Your task to perform on an android device: change text size in settings app Image 0: 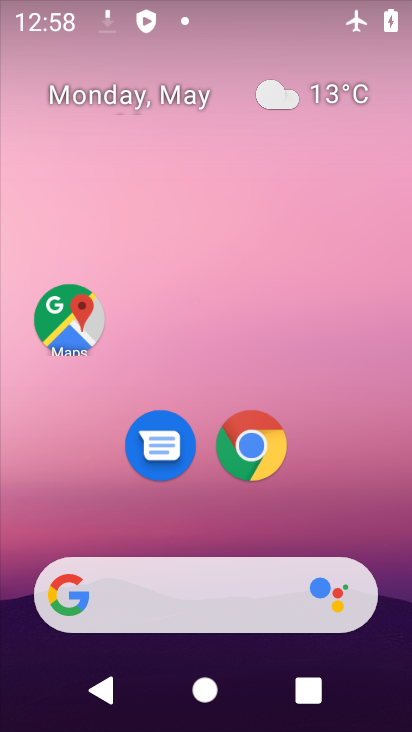
Step 0: drag from (311, 543) to (274, 89)
Your task to perform on an android device: change text size in settings app Image 1: 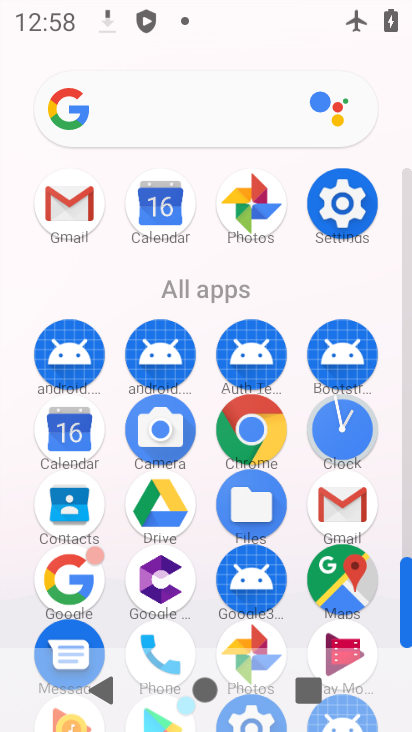
Step 1: click (335, 207)
Your task to perform on an android device: change text size in settings app Image 2: 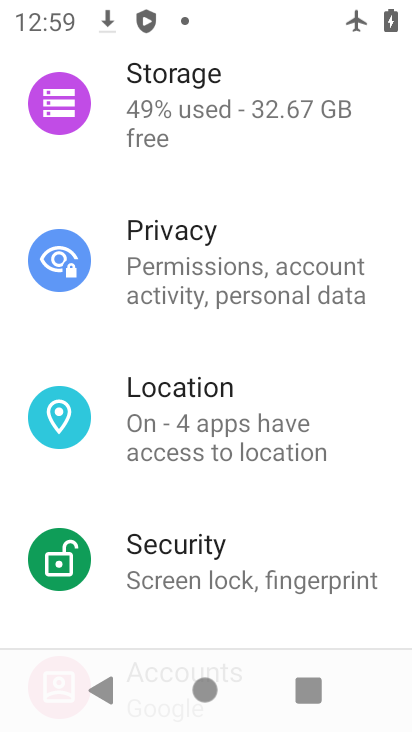
Step 2: drag from (239, 196) to (264, 526)
Your task to perform on an android device: change text size in settings app Image 3: 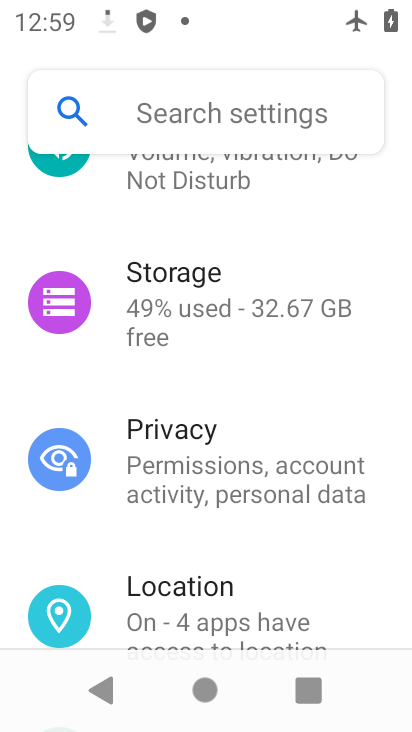
Step 3: drag from (261, 177) to (242, 439)
Your task to perform on an android device: change text size in settings app Image 4: 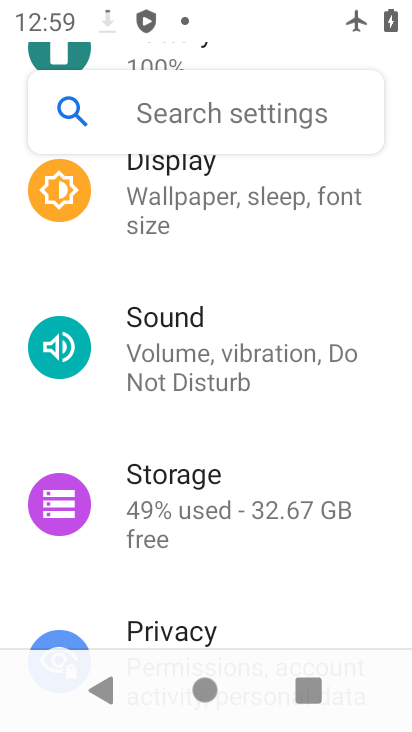
Step 4: click (218, 196)
Your task to perform on an android device: change text size in settings app Image 5: 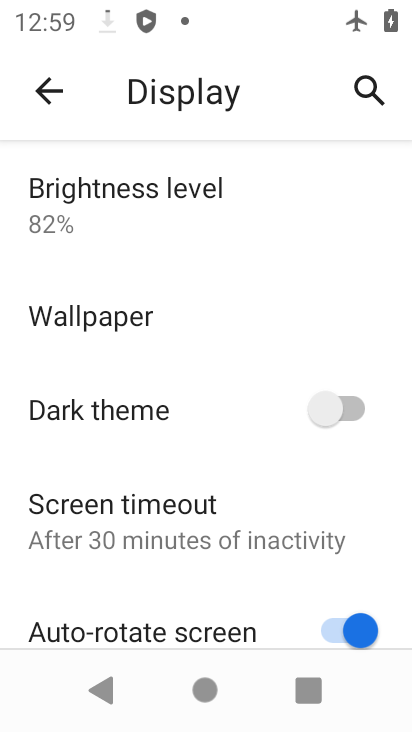
Step 5: drag from (137, 585) to (152, 291)
Your task to perform on an android device: change text size in settings app Image 6: 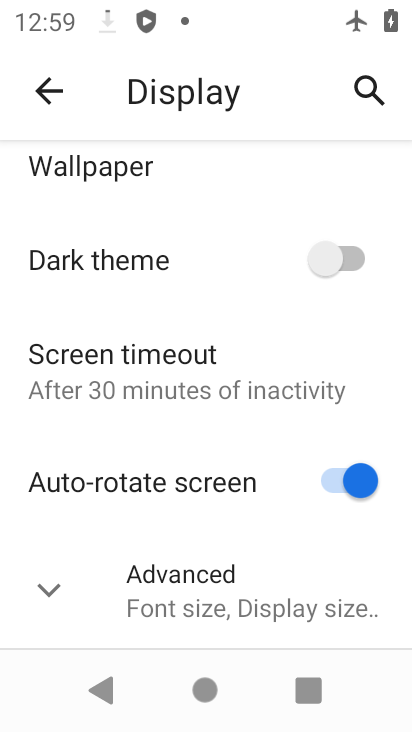
Step 6: click (144, 600)
Your task to perform on an android device: change text size in settings app Image 7: 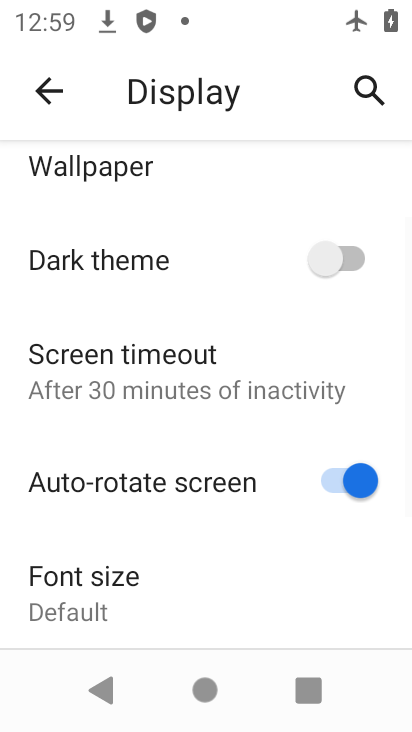
Step 7: click (44, 602)
Your task to perform on an android device: change text size in settings app Image 8: 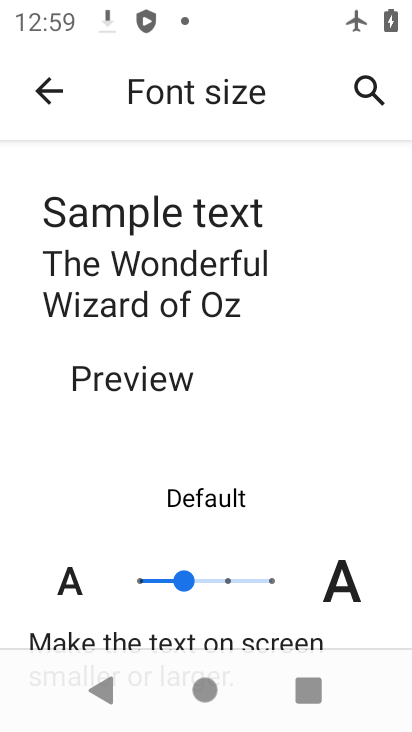
Step 8: click (235, 588)
Your task to perform on an android device: change text size in settings app Image 9: 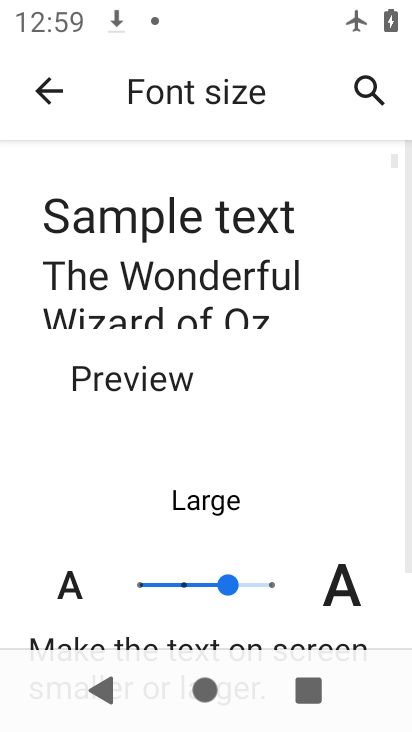
Step 9: task complete